Your task to perform on an android device: check battery use Image 0: 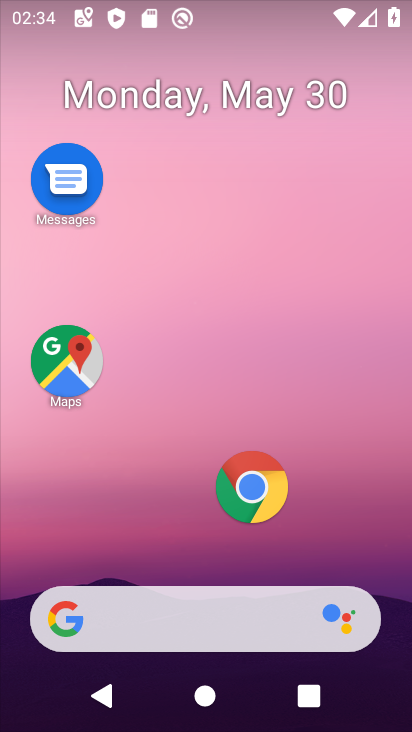
Step 0: drag from (195, 558) to (193, 31)
Your task to perform on an android device: check battery use Image 1: 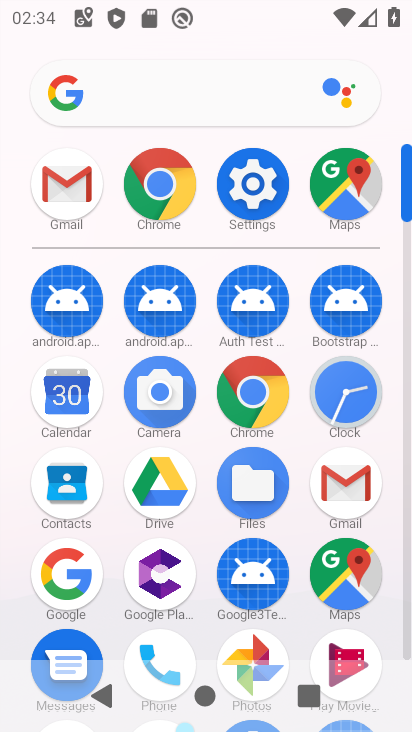
Step 1: click (250, 175)
Your task to perform on an android device: check battery use Image 2: 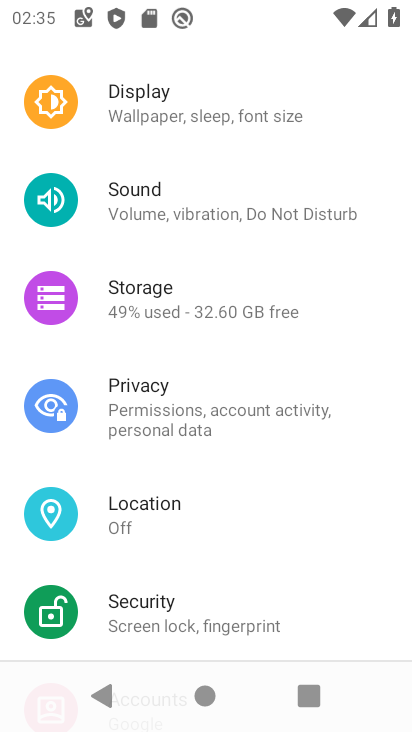
Step 2: click (164, 470)
Your task to perform on an android device: check battery use Image 3: 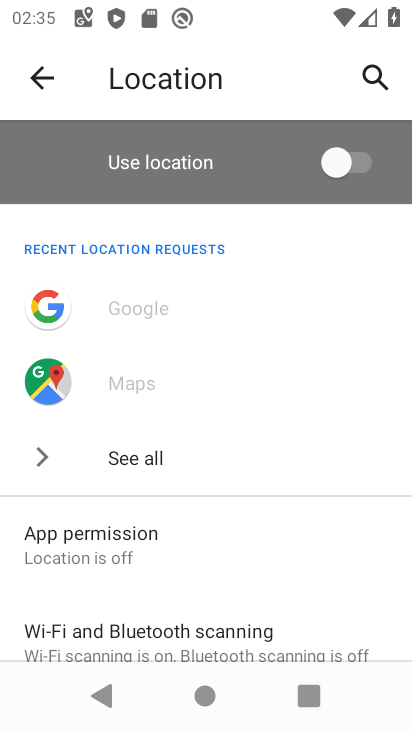
Step 3: click (43, 77)
Your task to perform on an android device: check battery use Image 4: 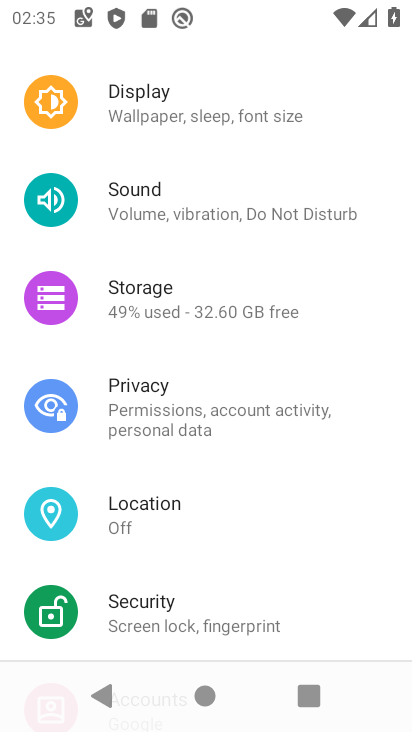
Step 4: drag from (173, 223) to (173, 453)
Your task to perform on an android device: check battery use Image 5: 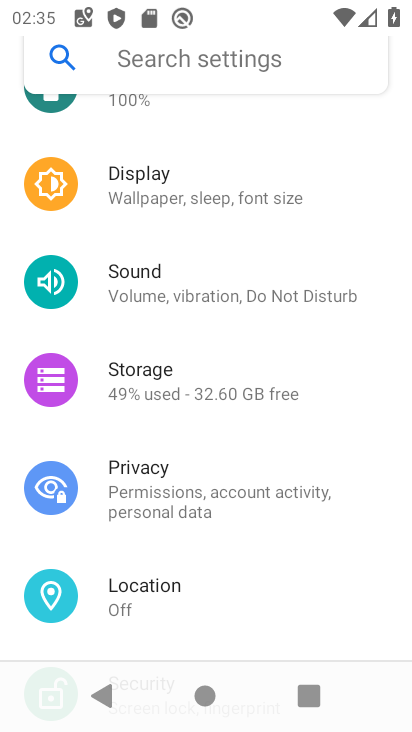
Step 5: drag from (232, 214) to (232, 569)
Your task to perform on an android device: check battery use Image 6: 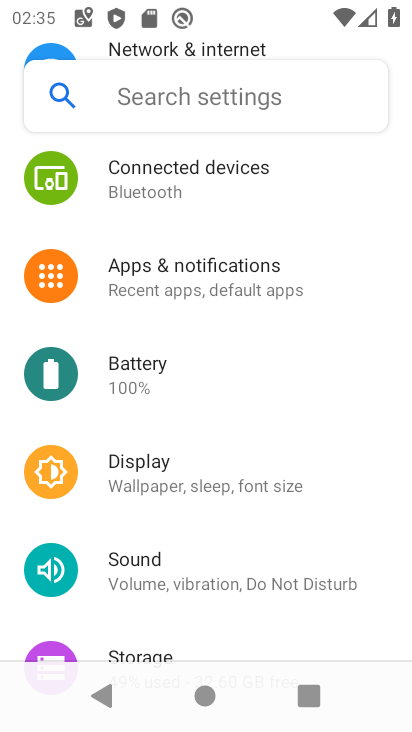
Step 6: drag from (206, 274) to (257, 626)
Your task to perform on an android device: check battery use Image 7: 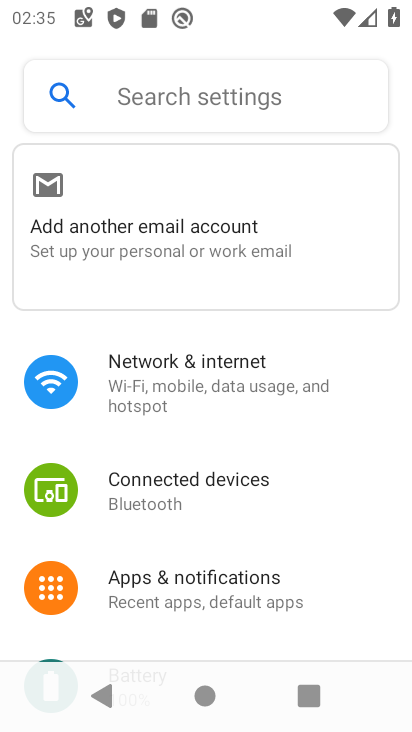
Step 7: drag from (259, 605) to (245, 180)
Your task to perform on an android device: check battery use Image 8: 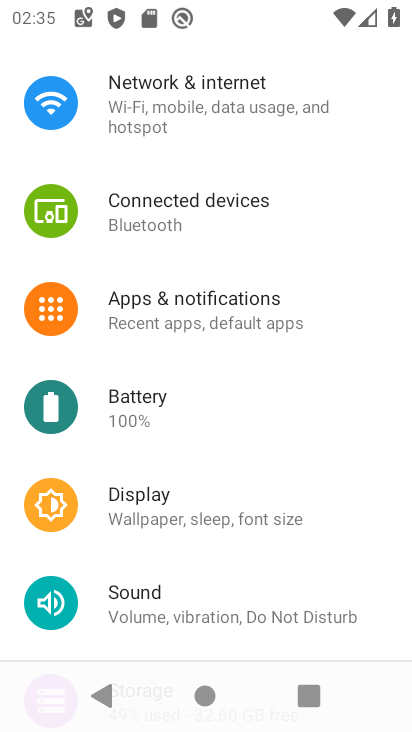
Step 8: click (122, 406)
Your task to perform on an android device: check battery use Image 9: 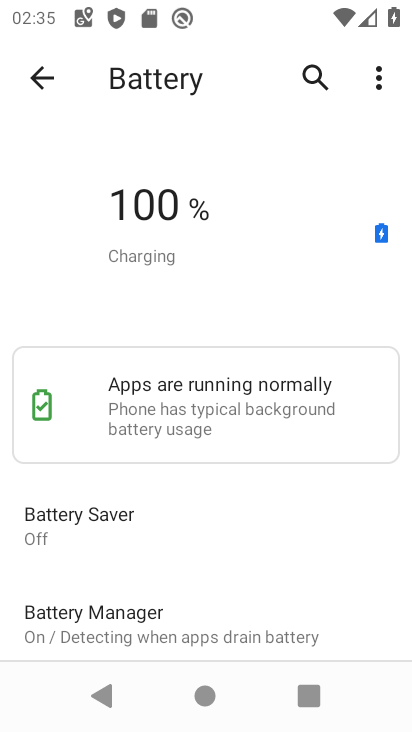
Step 9: task complete